Your task to perform on an android device: Go to CNN.com Image 0: 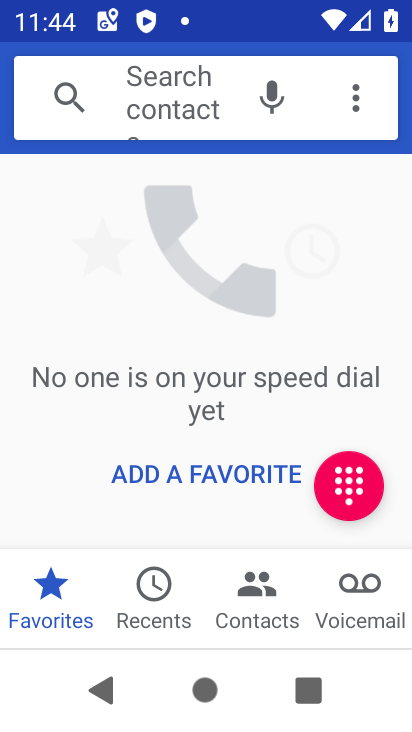
Step 0: press home button
Your task to perform on an android device: Go to CNN.com Image 1: 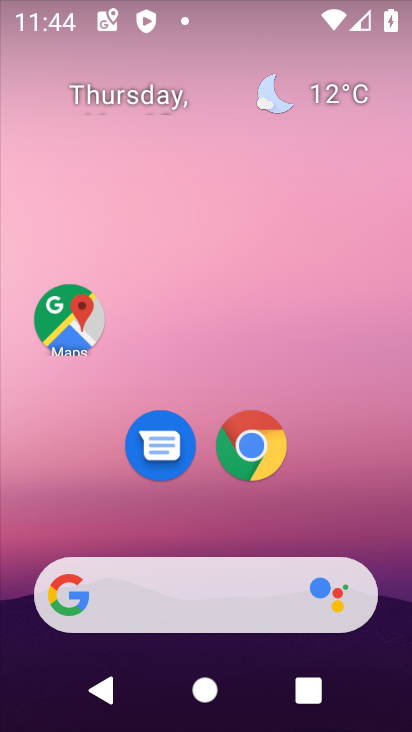
Step 1: click (249, 433)
Your task to perform on an android device: Go to CNN.com Image 2: 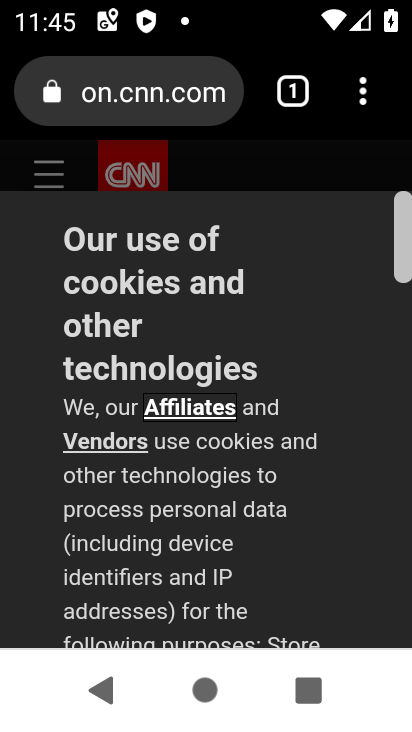
Step 2: task complete